Your task to perform on an android device: choose inbox layout in the gmail app Image 0: 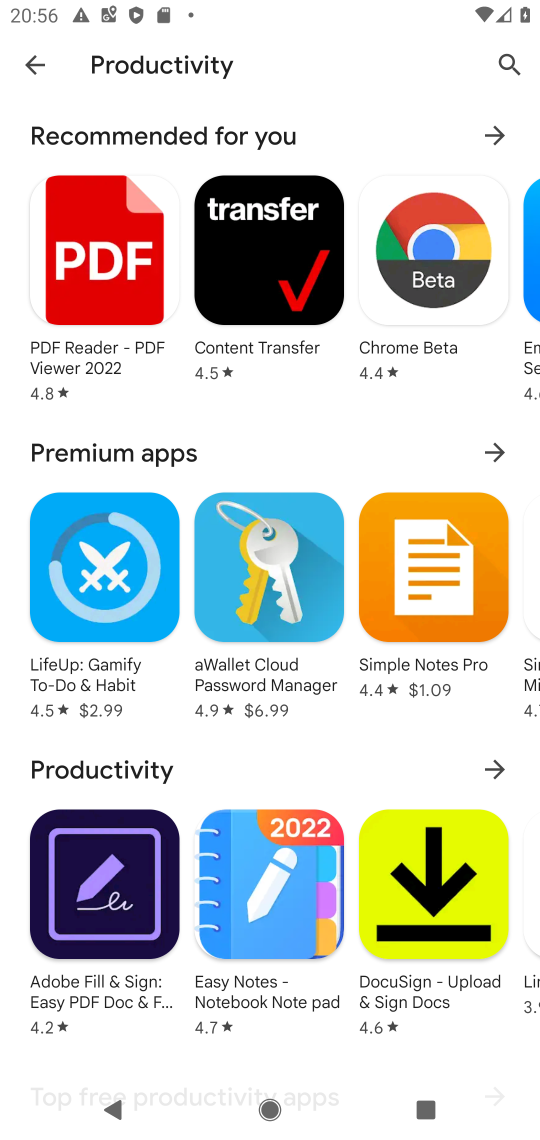
Step 0: press home button
Your task to perform on an android device: choose inbox layout in the gmail app Image 1: 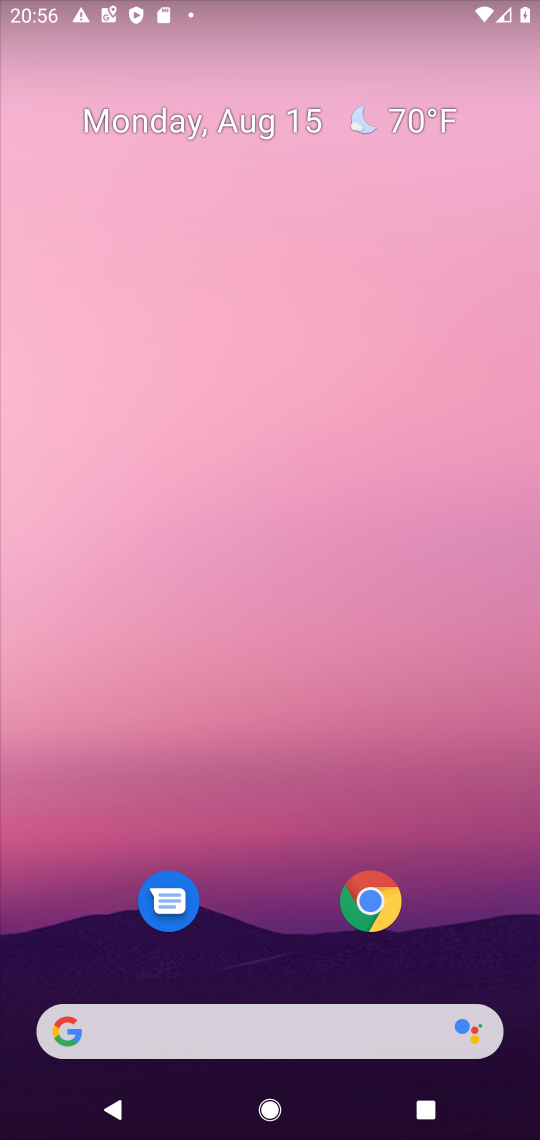
Step 1: drag from (229, 949) to (304, 12)
Your task to perform on an android device: choose inbox layout in the gmail app Image 2: 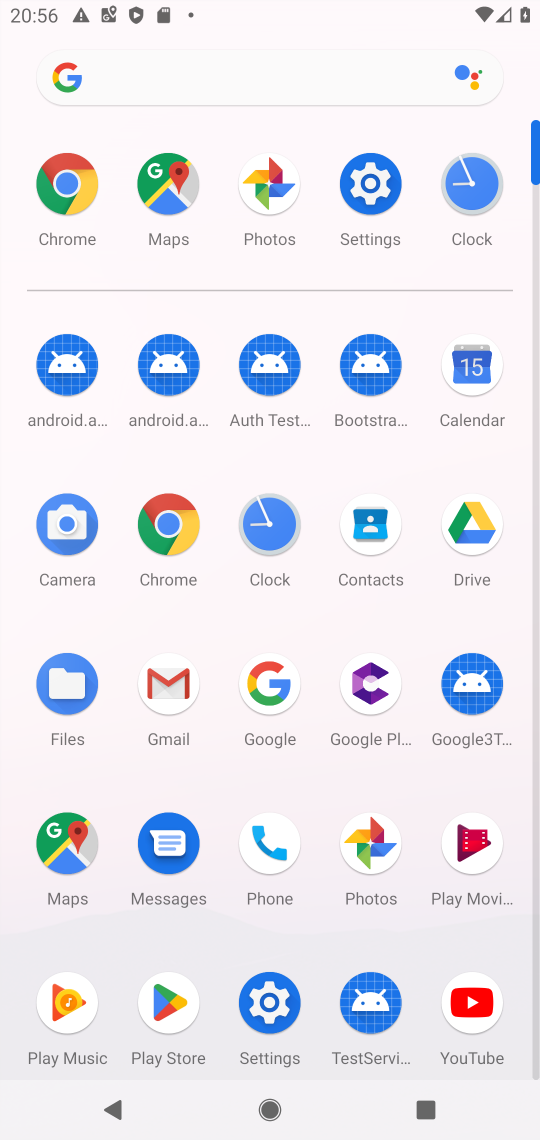
Step 2: click (174, 685)
Your task to perform on an android device: choose inbox layout in the gmail app Image 3: 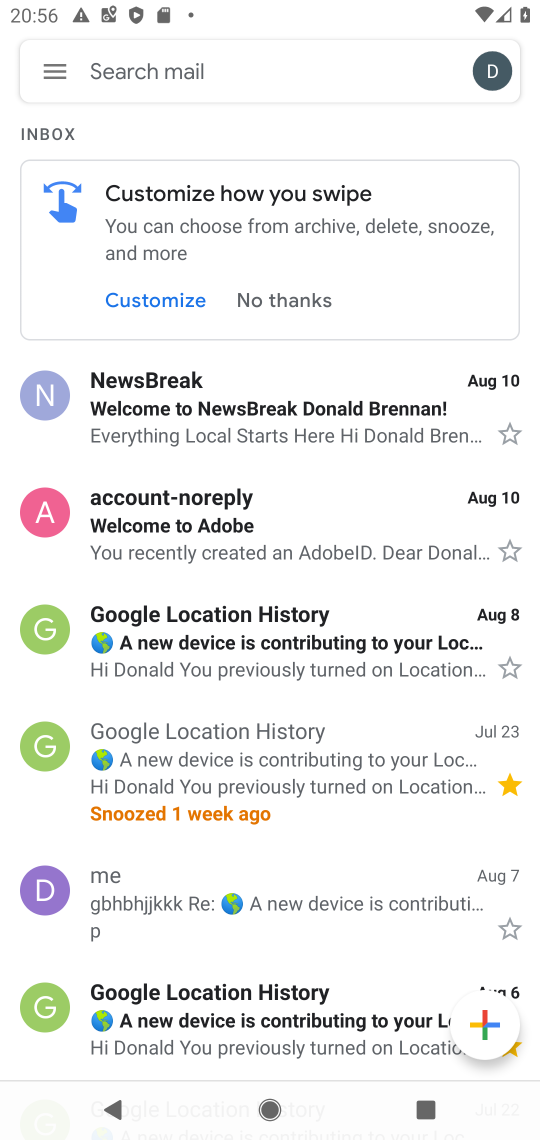
Step 3: click (62, 69)
Your task to perform on an android device: choose inbox layout in the gmail app Image 4: 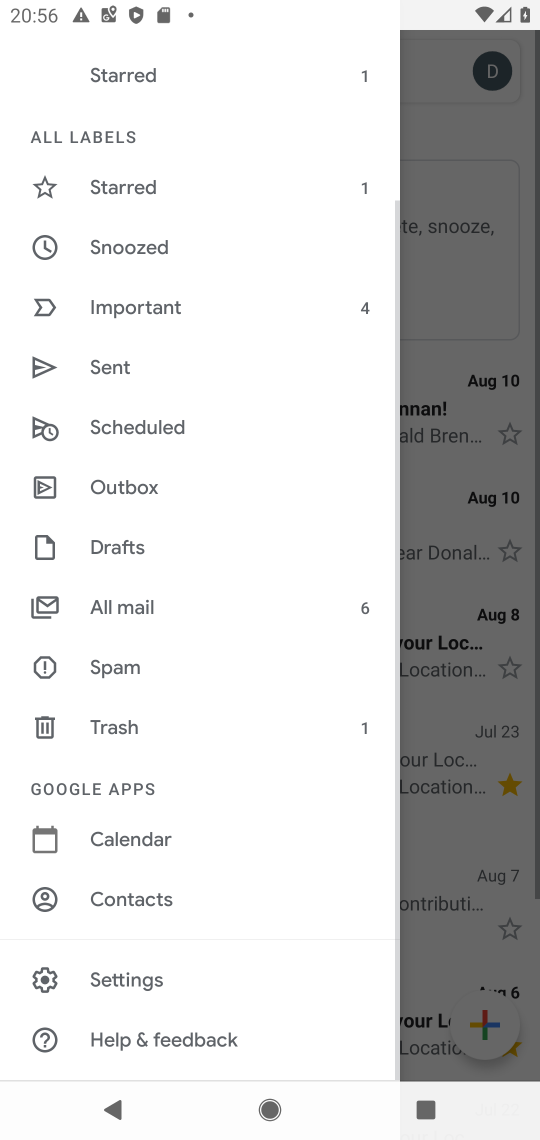
Step 4: drag from (157, 963) to (164, 737)
Your task to perform on an android device: choose inbox layout in the gmail app Image 5: 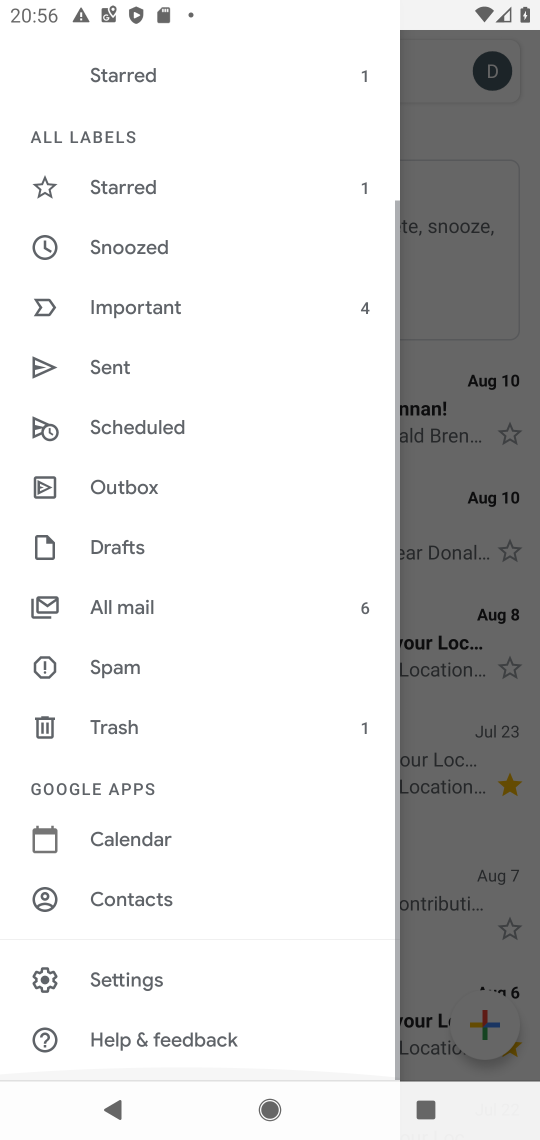
Step 5: click (126, 980)
Your task to perform on an android device: choose inbox layout in the gmail app Image 6: 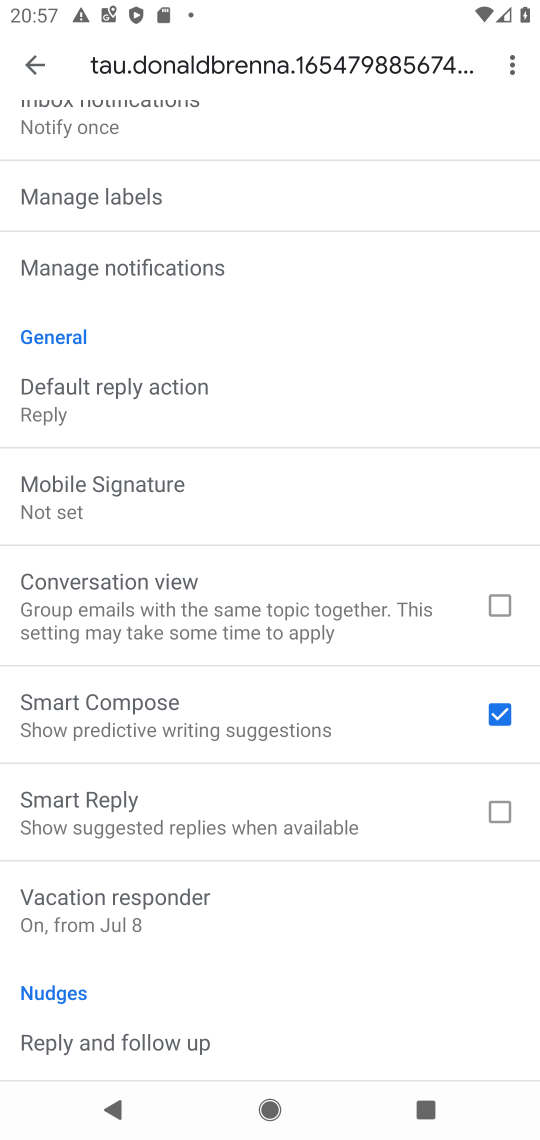
Step 6: drag from (210, 386) to (216, 824)
Your task to perform on an android device: choose inbox layout in the gmail app Image 7: 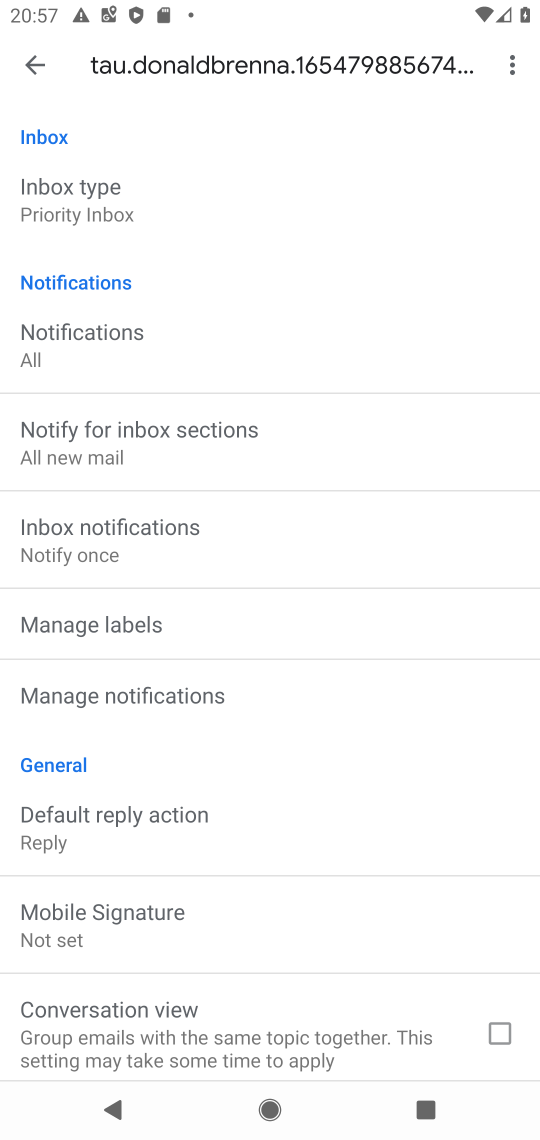
Step 7: drag from (193, 726) to (208, 1014)
Your task to perform on an android device: choose inbox layout in the gmail app Image 8: 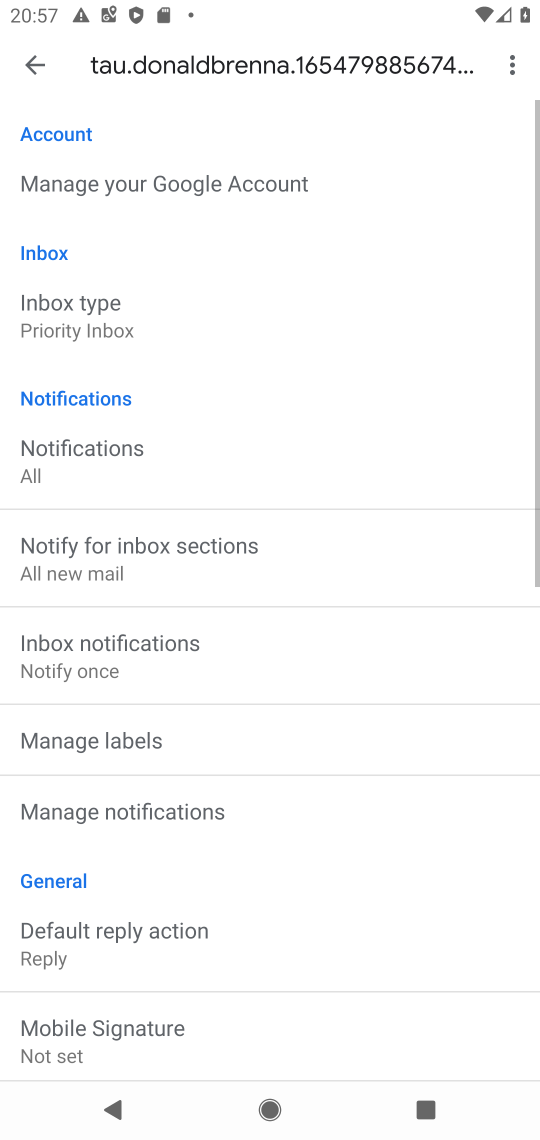
Step 8: click (98, 308)
Your task to perform on an android device: choose inbox layout in the gmail app Image 9: 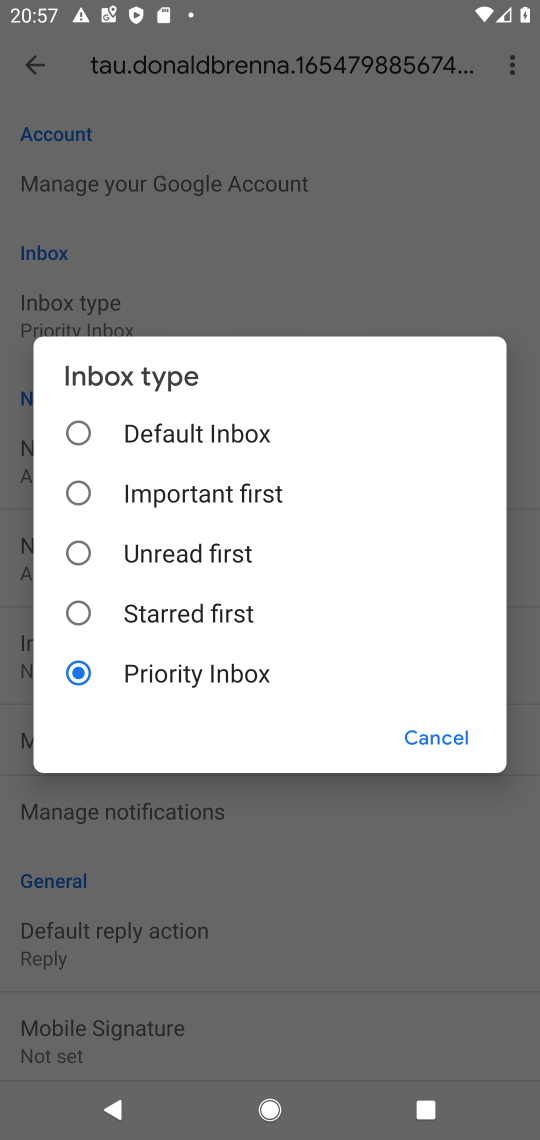
Step 9: click (134, 427)
Your task to perform on an android device: choose inbox layout in the gmail app Image 10: 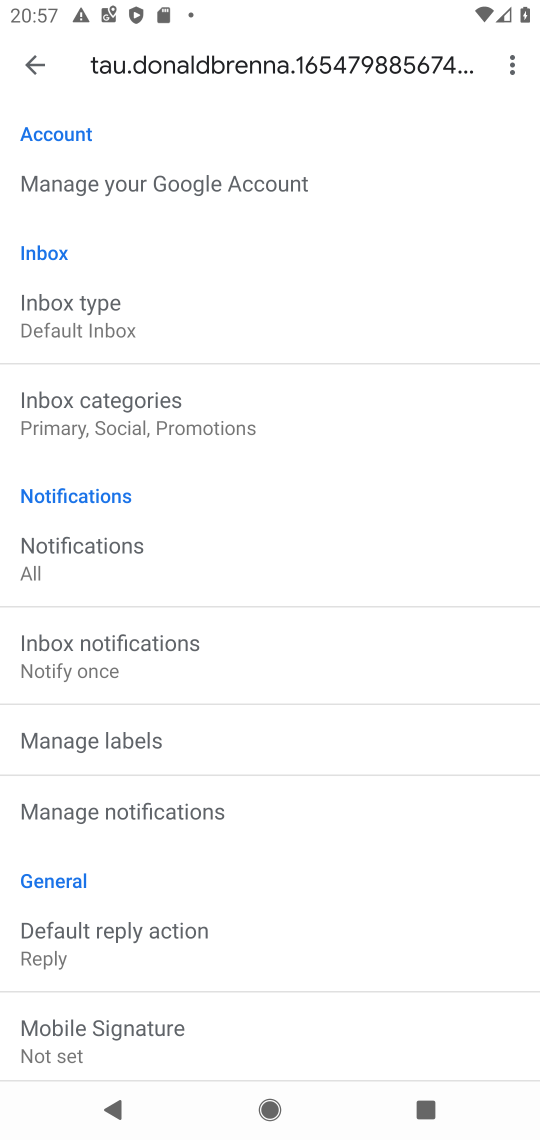
Step 10: task complete